Your task to perform on an android device: Open Google Chrome and click the shortcut for Amazon.com Image 0: 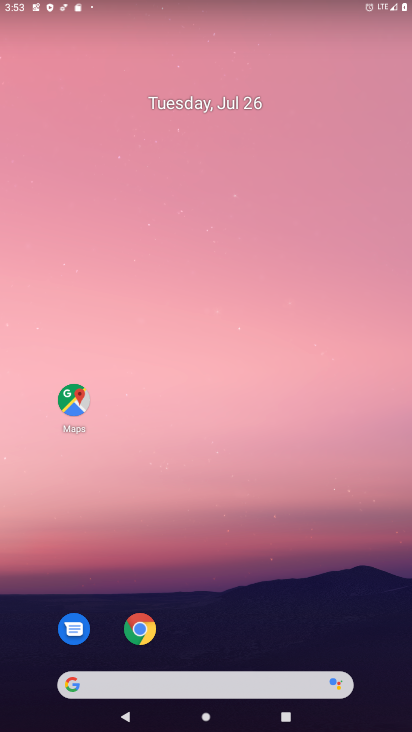
Step 0: drag from (234, 723) to (234, 204)
Your task to perform on an android device: Open Google Chrome and click the shortcut for Amazon.com Image 1: 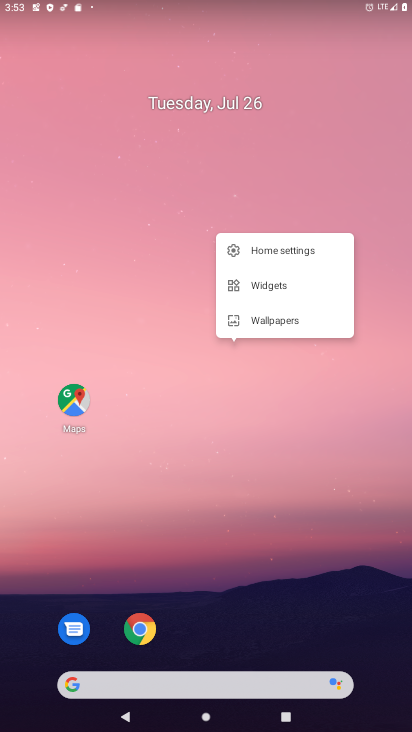
Step 1: click (193, 457)
Your task to perform on an android device: Open Google Chrome and click the shortcut for Amazon.com Image 2: 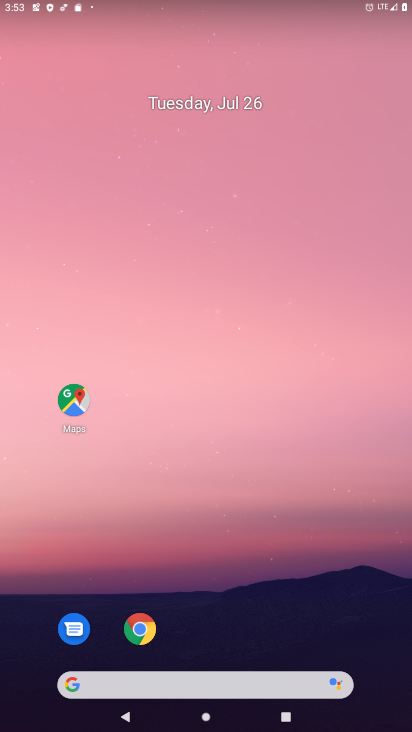
Step 2: drag from (245, 725) to (246, 230)
Your task to perform on an android device: Open Google Chrome and click the shortcut for Amazon.com Image 3: 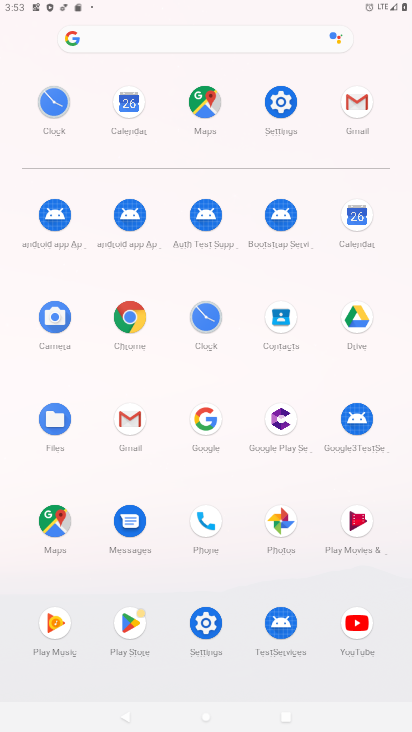
Step 3: click (132, 312)
Your task to perform on an android device: Open Google Chrome and click the shortcut for Amazon.com Image 4: 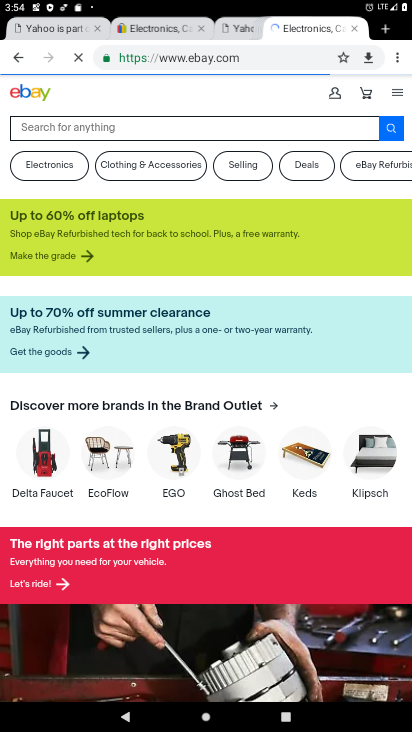
Step 4: click (398, 58)
Your task to perform on an android device: Open Google Chrome and click the shortcut for Amazon.com Image 5: 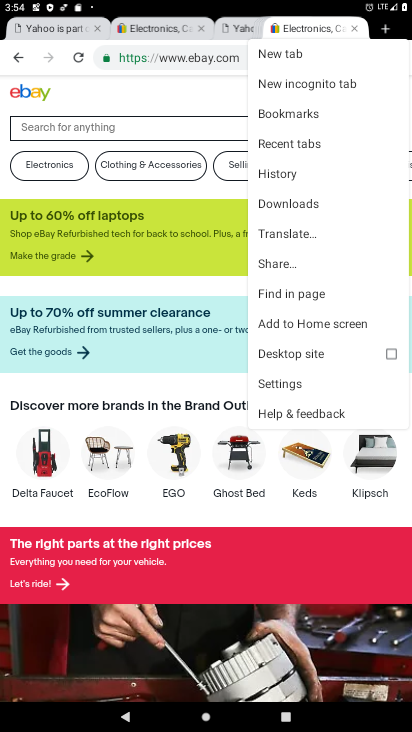
Step 5: click (284, 54)
Your task to perform on an android device: Open Google Chrome and click the shortcut for Amazon.com Image 6: 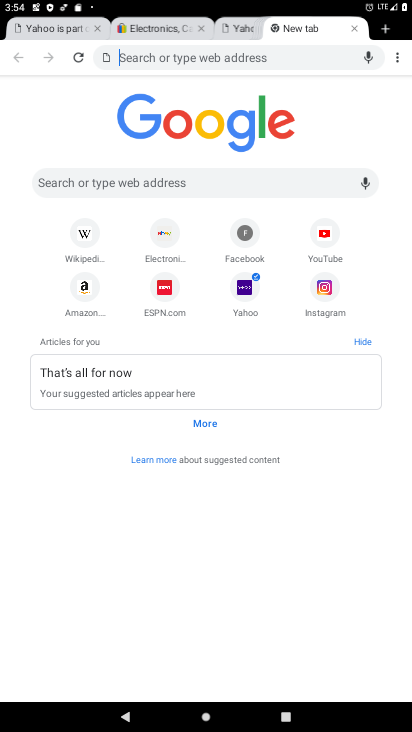
Step 6: click (83, 289)
Your task to perform on an android device: Open Google Chrome and click the shortcut for Amazon.com Image 7: 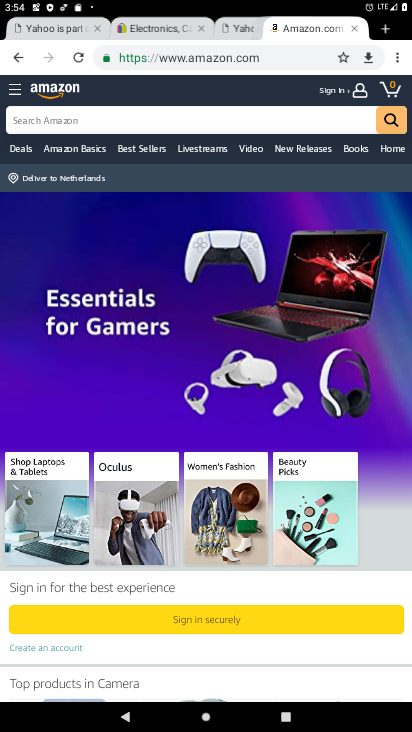
Step 7: task complete